Your task to perform on an android device: Open notification settings Image 0: 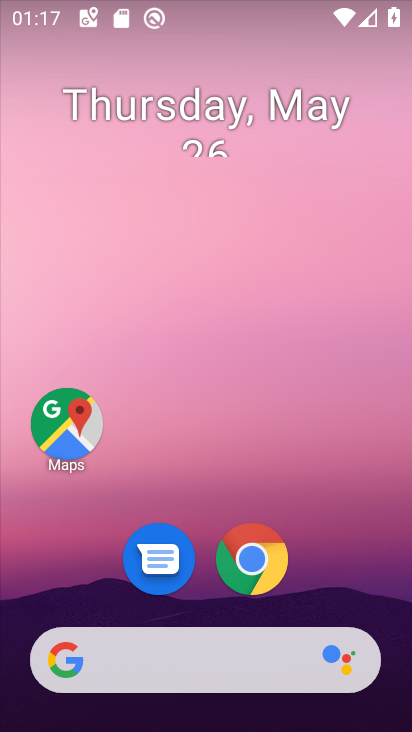
Step 0: press home button
Your task to perform on an android device: Open notification settings Image 1: 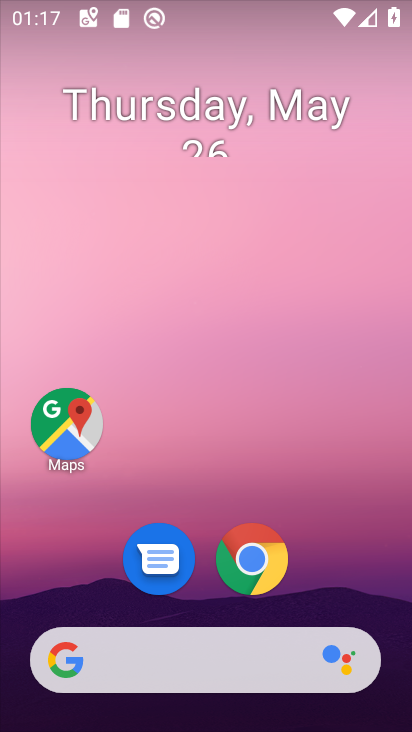
Step 1: drag from (361, 575) to (368, 128)
Your task to perform on an android device: Open notification settings Image 2: 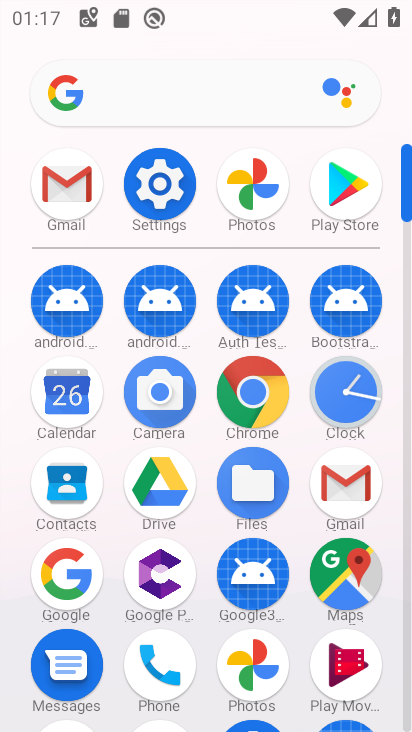
Step 2: click (147, 191)
Your task to perform on an android device: Open notification settings Image 3: 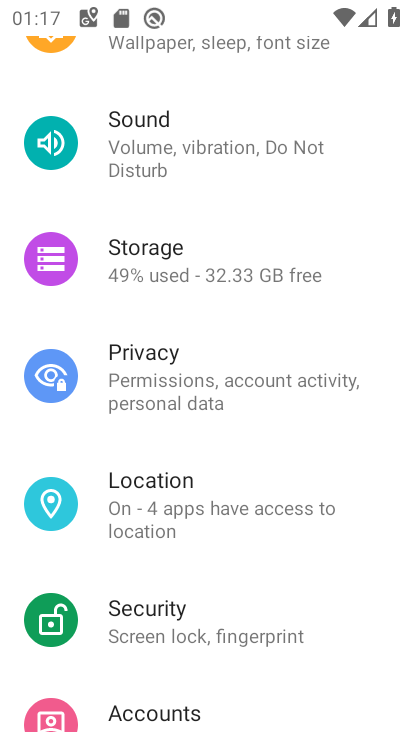
Step 3: drag from (239, 115) to (228, 550)
Your task to perform on an android device: Open notification settings Image 4: 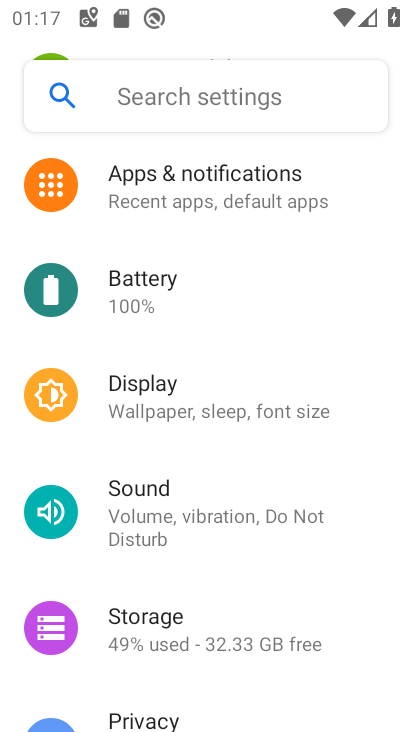
Step 4: click (178, 185)
Your task to perform on an android device: Open notification settings Image 5: 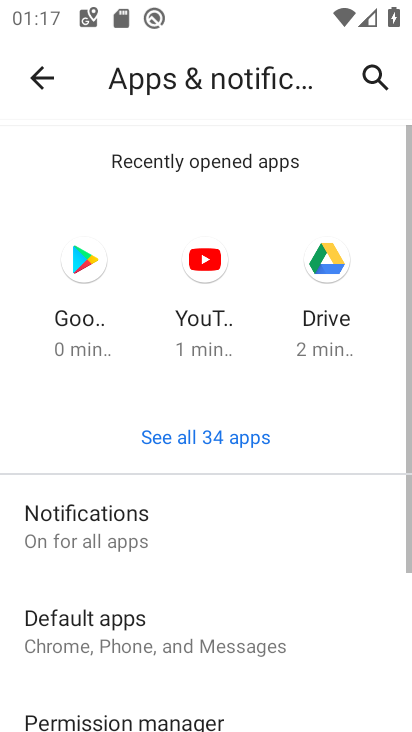
Step 5: click (154, 514)
Your task to perform on an android device: Open notification settings Image 6: 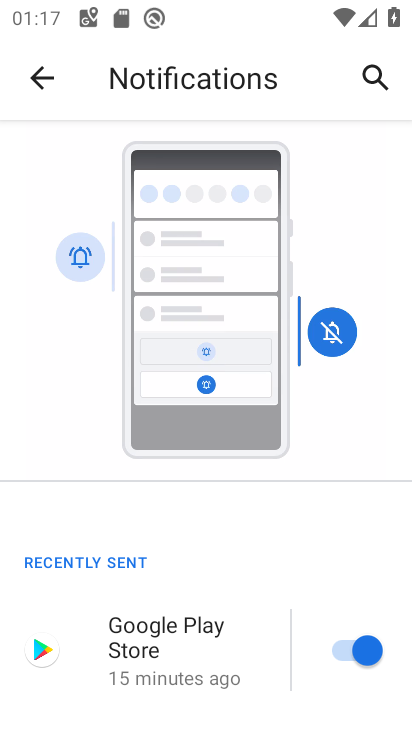
Step 6: task complete